Your task to perform on an android device: delete a single message in the gmail app Image 0: 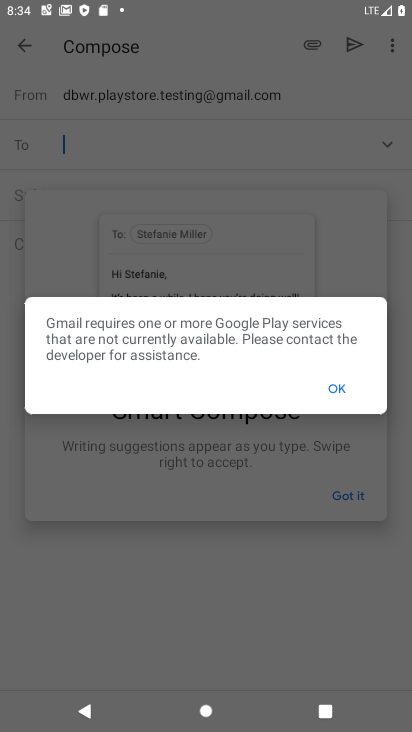
Step 0: press home button
Your task to perform on an android device: delete a single message in the gmail app Image 1: 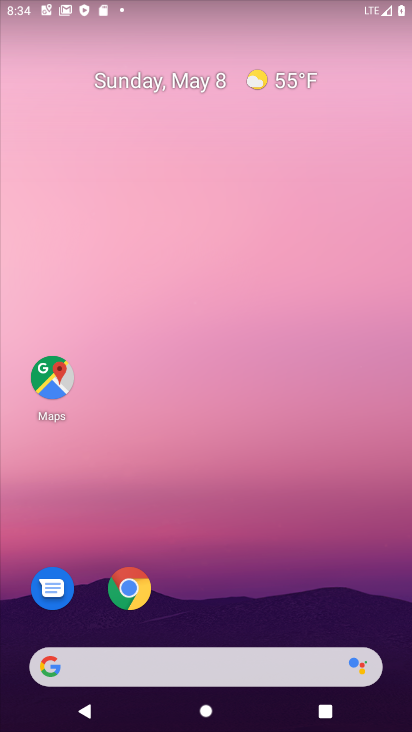
Step 1: drag from (367, 611) to (231, 59)
Your task to perform on an android device: delete a single message in the gmail app Image 2: 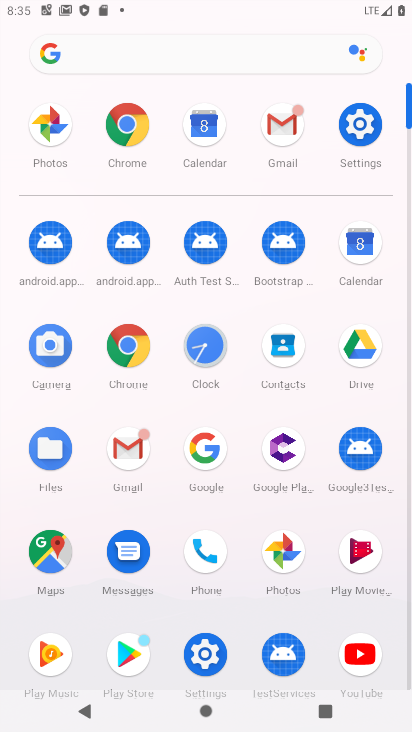
Step 2: click (120, 442)
Your task to perform on an android device: delete a single message in the gmail app Image 3: 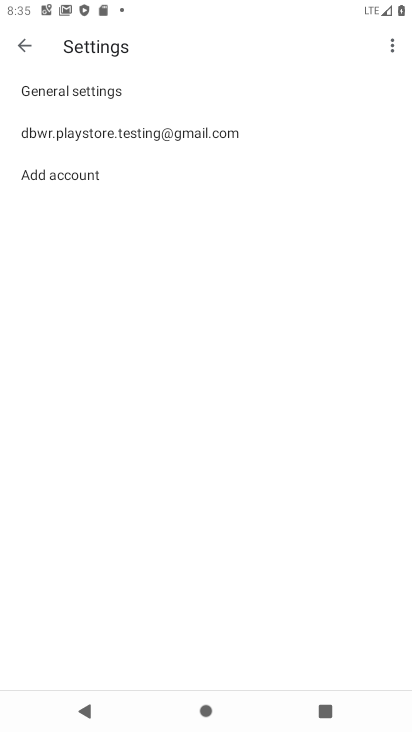
Step 3: press back button
Your task to perform on an android device: delete a single message in the gmail app Image 4: 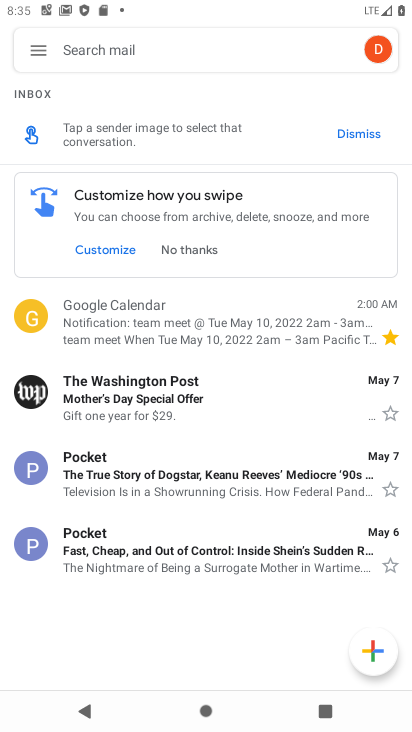
Step 4: click (210, 335)
Your task to perform on an android device: delete a single message in the gmail app Image 5: 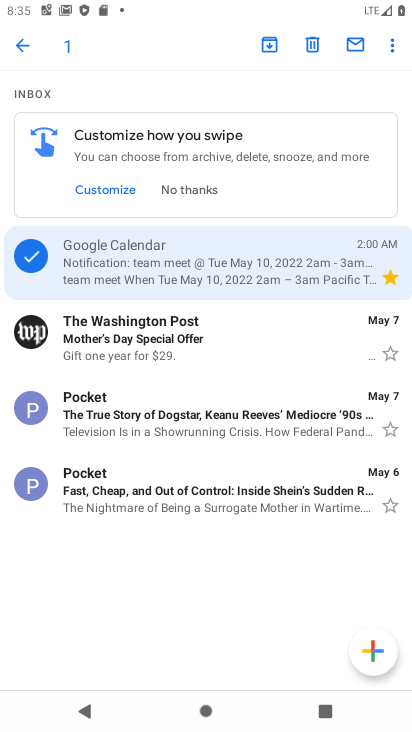
Step 5: click (306, 48)
Your task to perform on an android device: delete a single message in the gmail app Image 6: 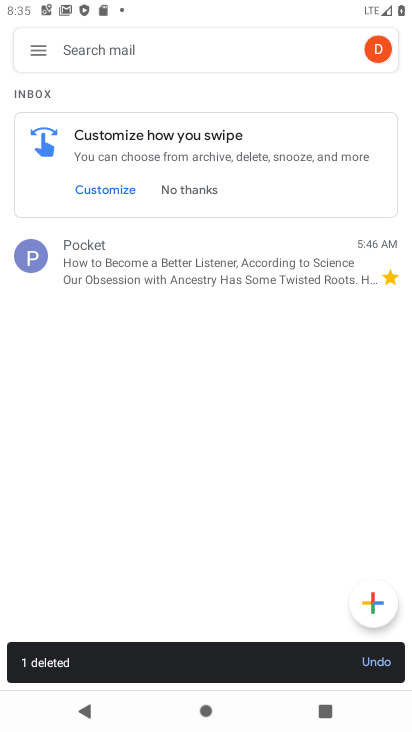
Step 6: task complete